Your task to perform on an android device: What is the news today? Image 0: 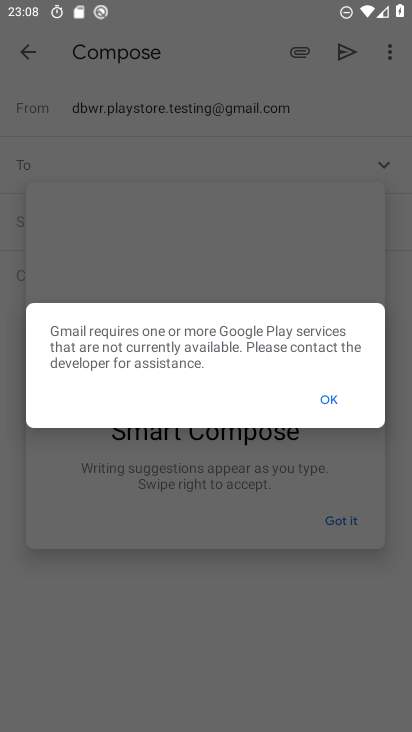
Step 0: press home button
Your task to perform on an android device: What is the news today? Image 1: 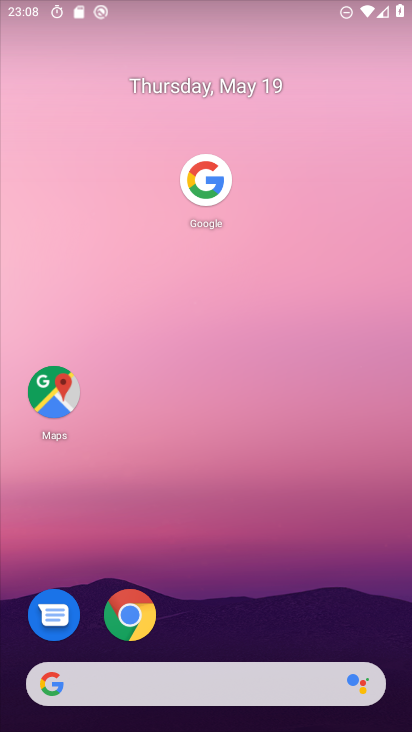
Step 1: drag from (215, 597) to (247, 104)
Your task to perform on an android device: What is the news today? Image 2: 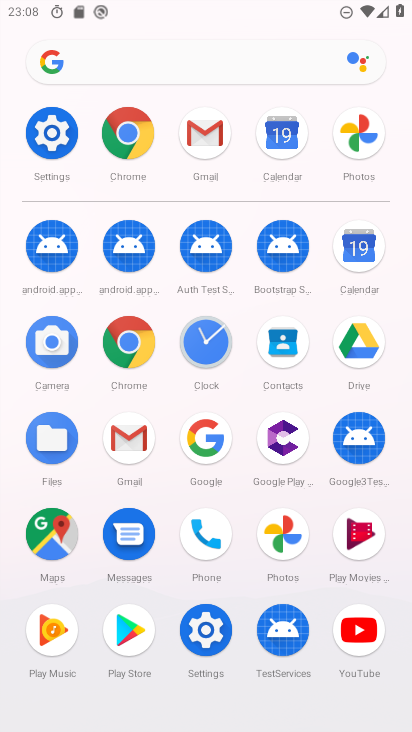
Step 2: click (207, 436)
Your task to perform on an android device: What is the news today? Image 3: 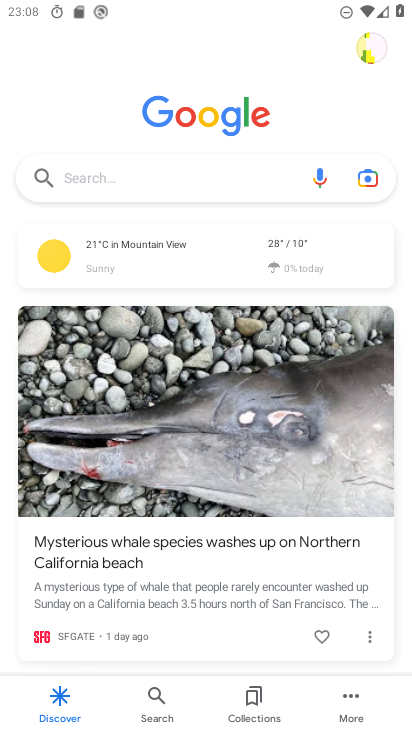
Step 3: click (156, 170)
Your task to perform on an android device: What is the news today? Image 4: 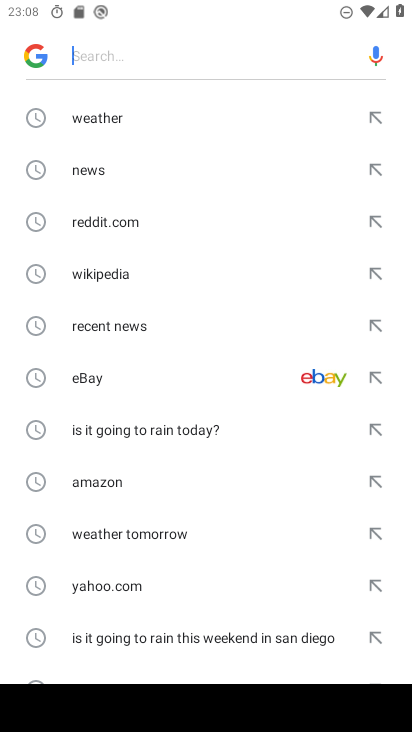
Step 4: click (137, 174)
Your task to perform on an android device: What is the news today? Image 5: 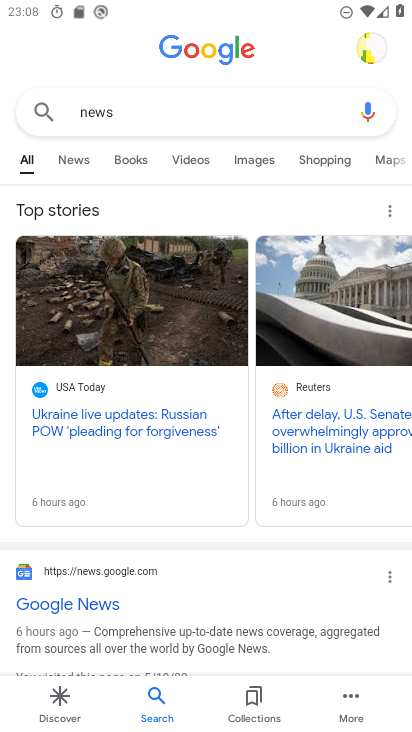
Step 5: task complete